Your task to perform on an android device: Is it going to rain today? Image 0: 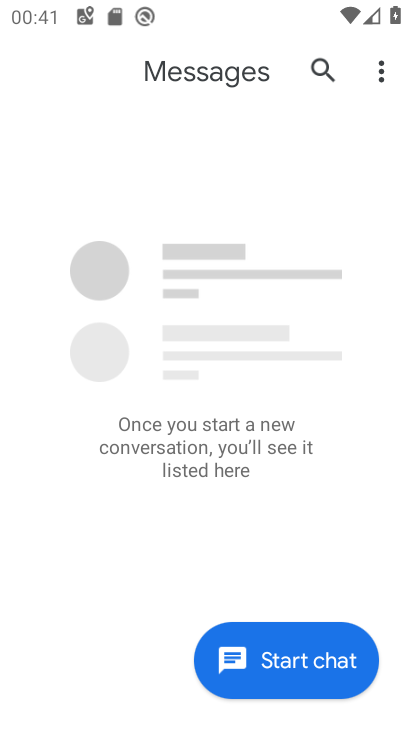
Step 0: press home button
Your task to perform on an android device: Is it going to rain today? Image 1: 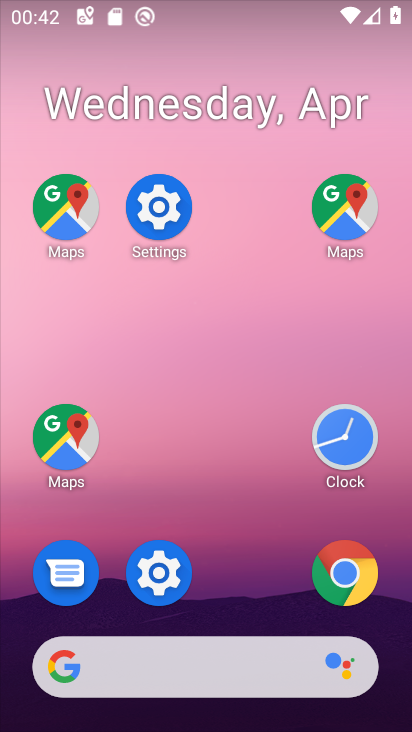
Step 1: drag from (9, 286) to (371, 396)
Your task to perform on an android device: Is it going to rain today? Image 2: 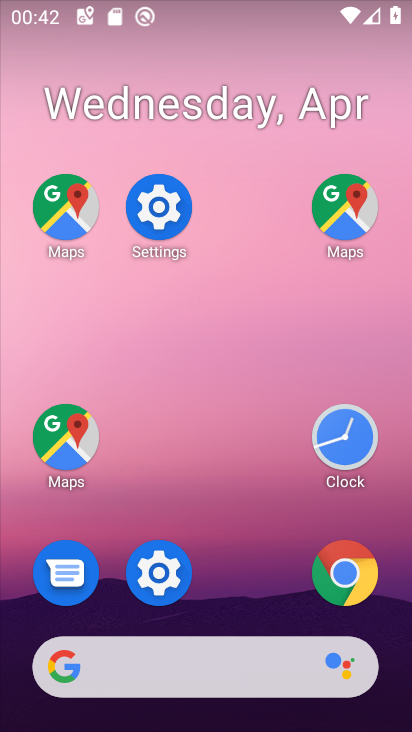
Step 2: drag from (14, 162) to (183, 185)
Your task to perform on an android device: Is it going to rain today? Image 3: 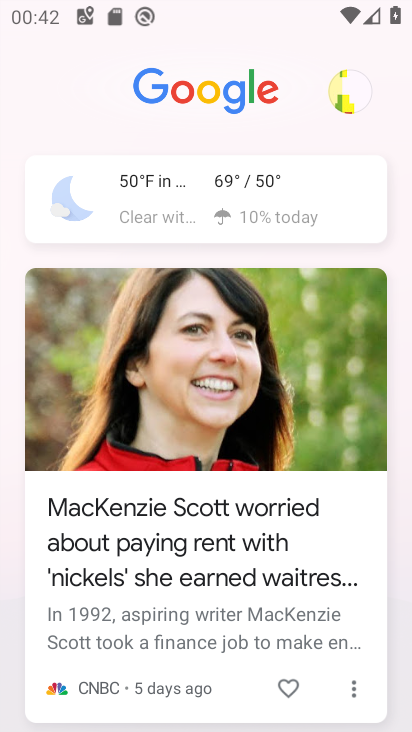
Step 3: click (242, 188)
Your task to perform on an android device: Is it going to rain today? Image 4: 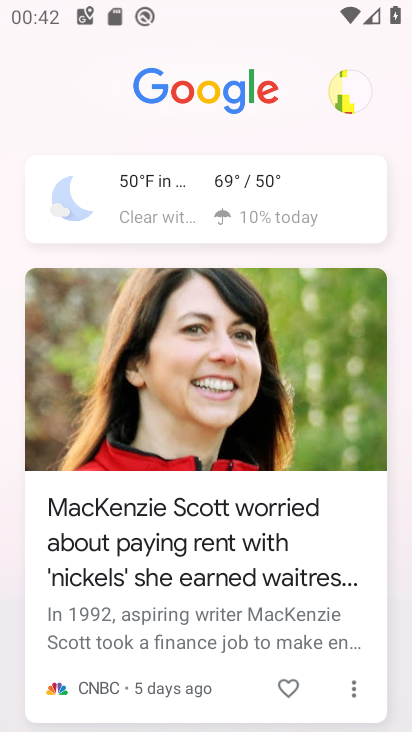
Step 4: click (242, 188)
Your task to perform on an android device: Is it going to rain today? Image 5: 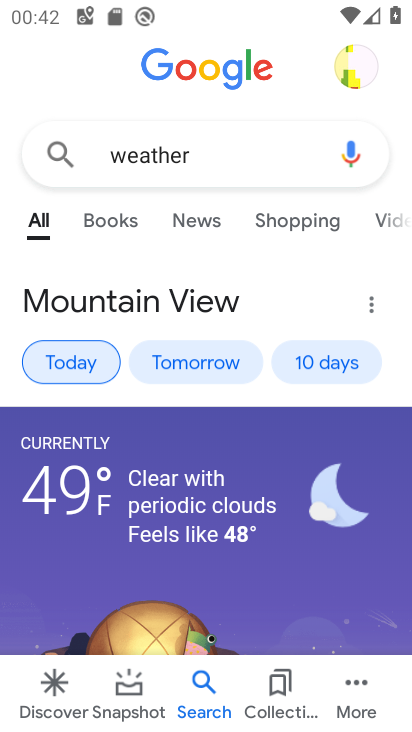
Step 5: task complete